Your task to perform on an android device: What is the recent news? Image 0: 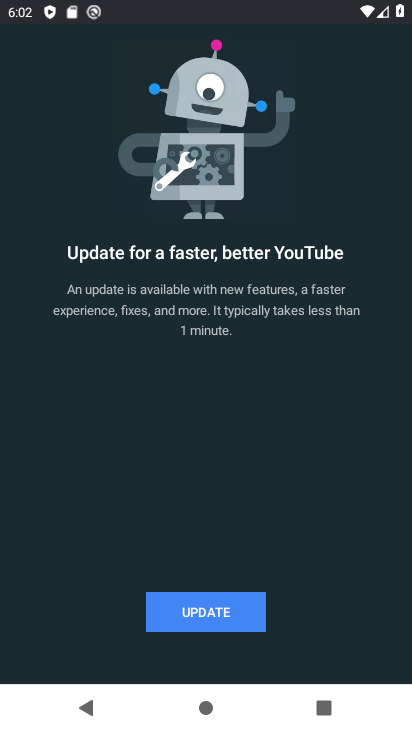
Step 0: press home button
Your task to perform on an android device: What is the recent news? Image 1: 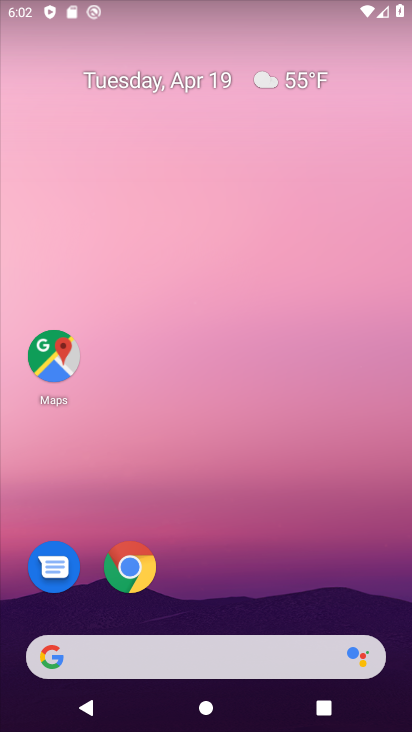
Step 1: click (211, 655)
Your task to perform on an android device: What is the recent news? Image 2: 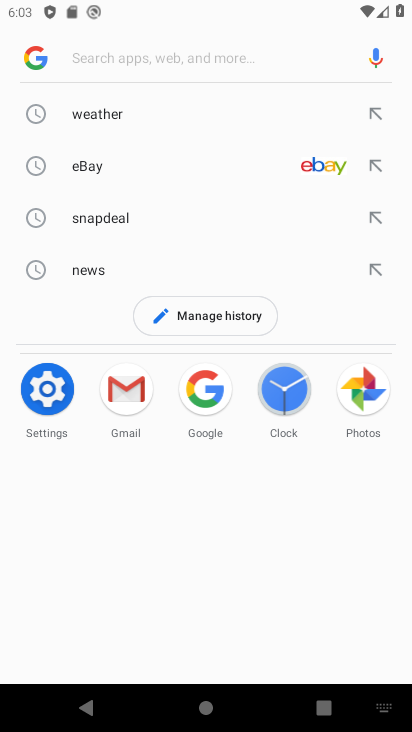
Step 2: click (107, 262)
Your task to perform on an android device: What is the recent news? Image 3: 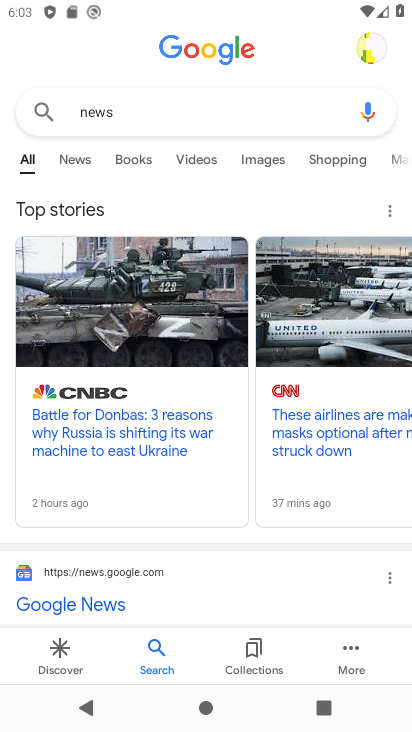
Step 3: task complete